Your task to perform on an android device: all mails in gmail Image 0: 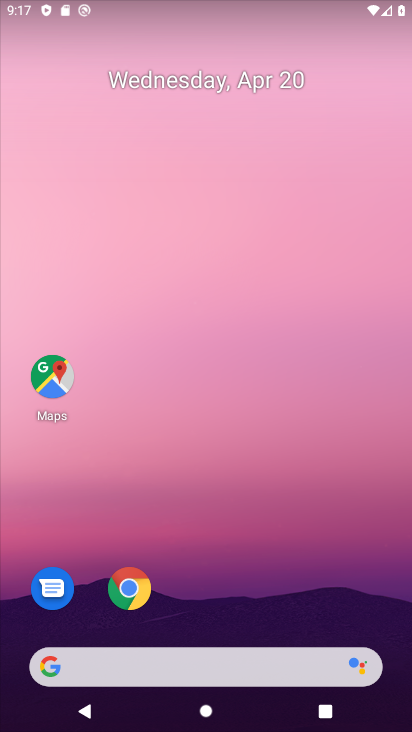
Step 0: drag from (227, 592) to (181, 118)
Your task to perform on an android device: all mails in gmail Image 1: 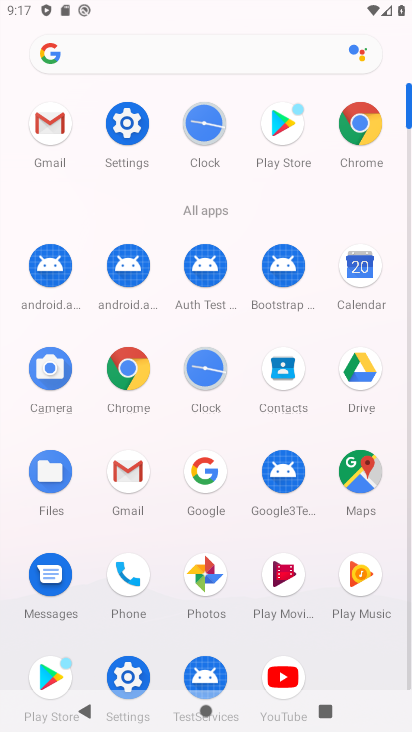
Step 1: click (118, 476)
Your task to perform on an android device: all mails in gmail Image 2: 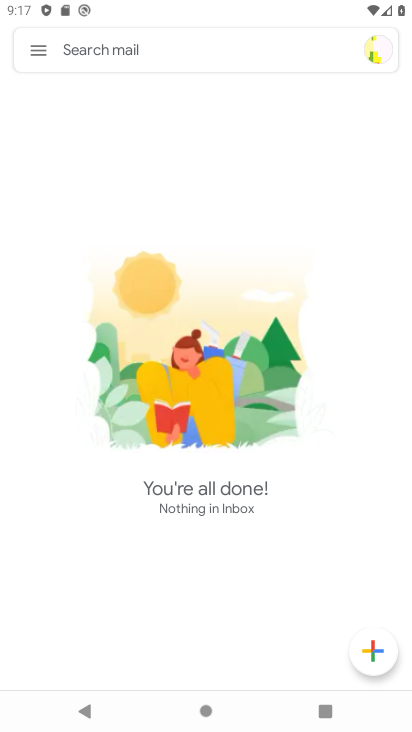
Step 2: click (38, 44)
Your task to perform on an android device: all mails in gmail Image 3: 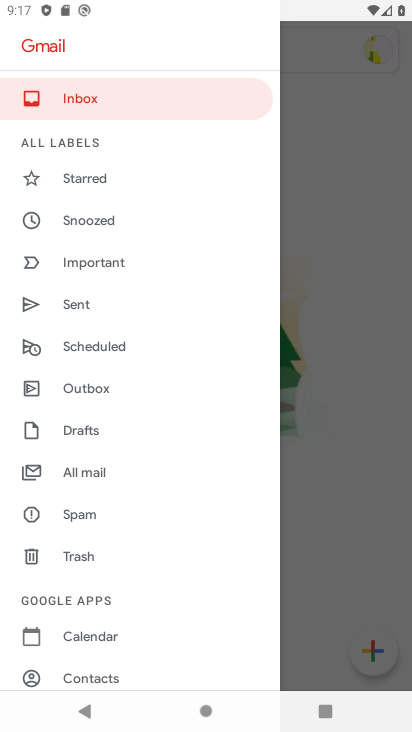
Step 3: click (83, 467)
Your task to perform on an android device: all mails in gmail Image 4: 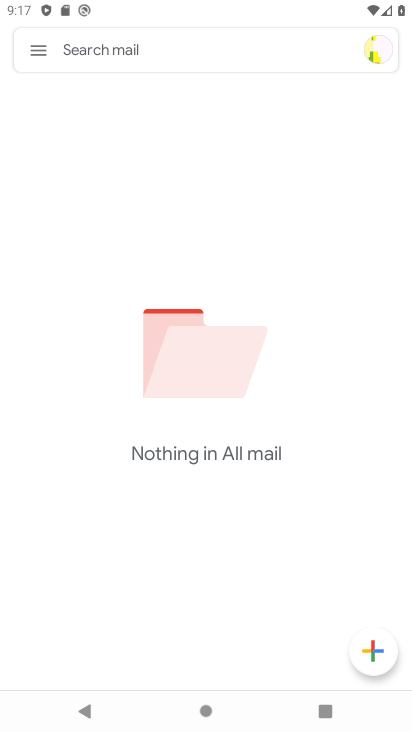
Step 4: task complete